Your task to perform on an android device: Open calendar and show me the third week of next month Image 0: 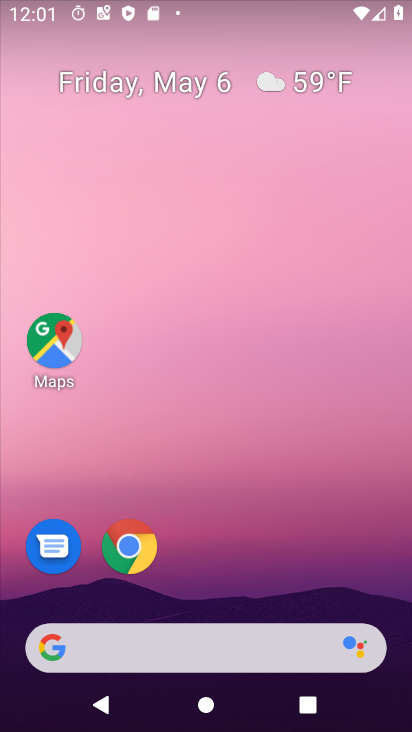
Step 0: click (167, 85)
Your task to perform on an android device: Open calendar and show me the third week of next month Image 1: 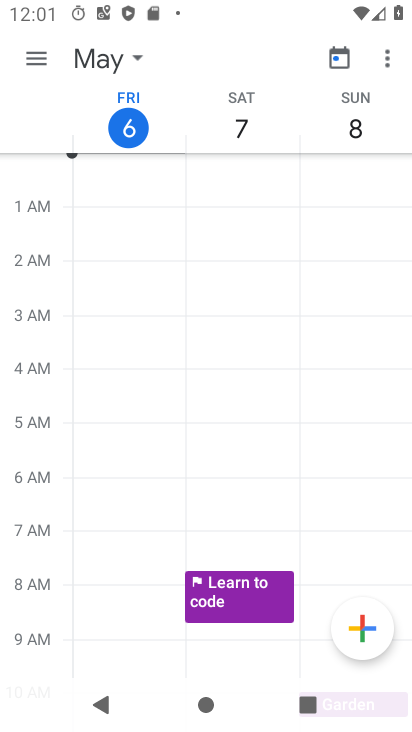
Step 1: click (36, 57)
Your task to perform on an android device: Open calendar and show me the third week of next month Image 2: 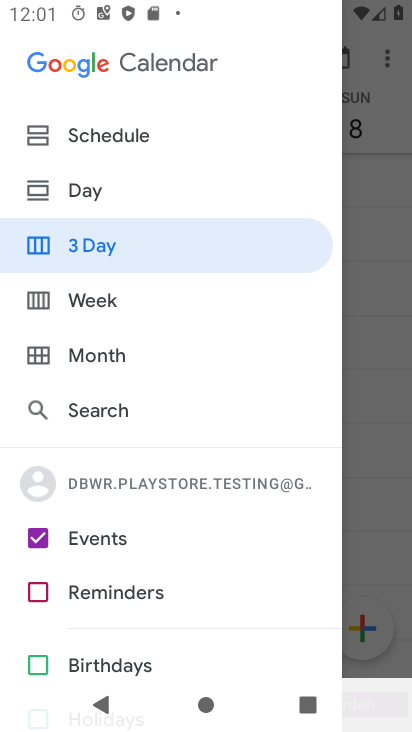
Step 2: click (95, 302)
Your task to perform on an android device: Open calendar and show me the third week of next month Image 3: 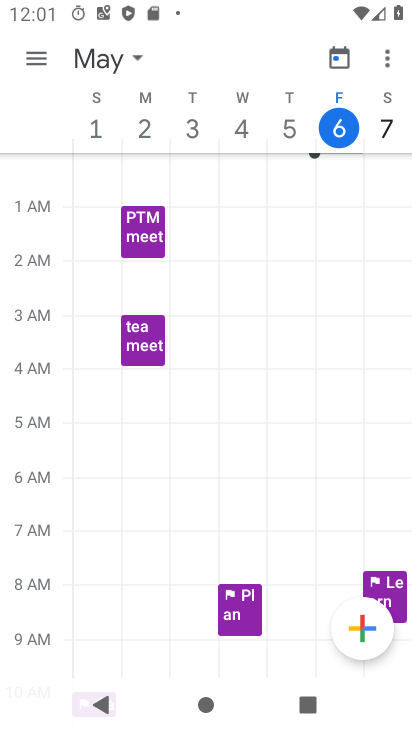
Step 3: click (127, 60)
Your task to perform on an android device: Open calendar and show me the third week of next month Image 4: 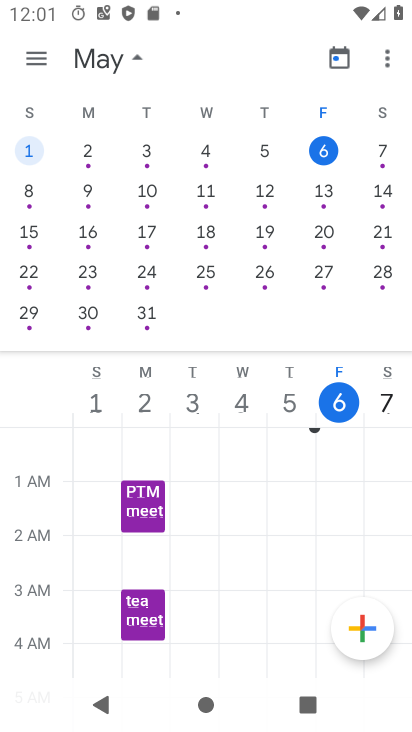
Step 4: click (31, 232)
Your task to perform on an android device: Open calendar and show me the third week of next month Image 5: 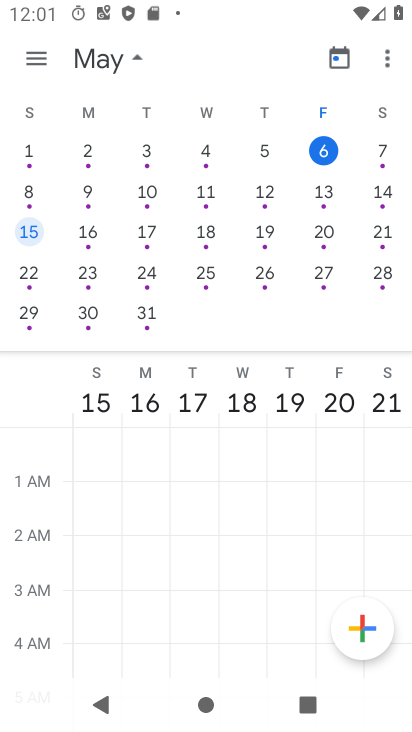
Step 5: task complete